Your task to perform on an android device: Go to settings Image 0: 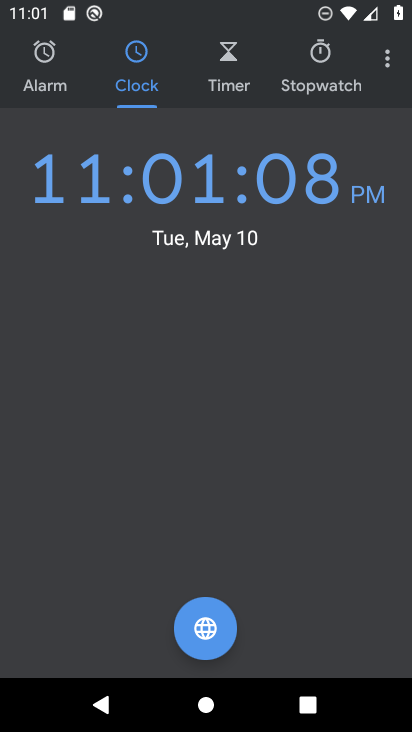
Step 0: press home button
Your task to perform on an android device: Go to settings Image 1: 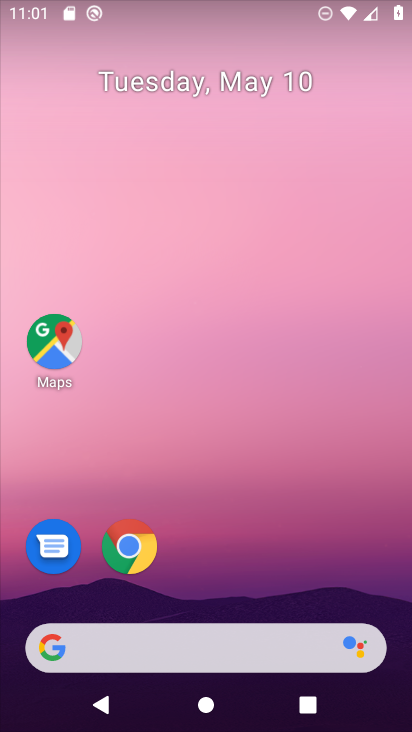
Step 1: drag from (304, 390) to (276, 53)
Your task to perform on an android device: Go to settings Image 2: 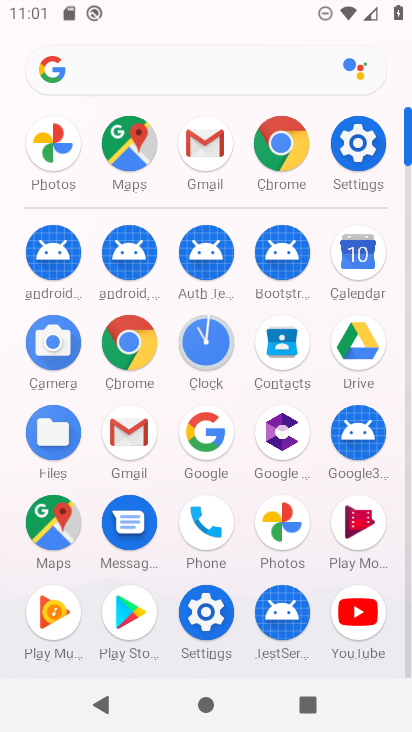
Step 2: click (357, 134)
Your task to perform on an android device: Go to settings Image 3: 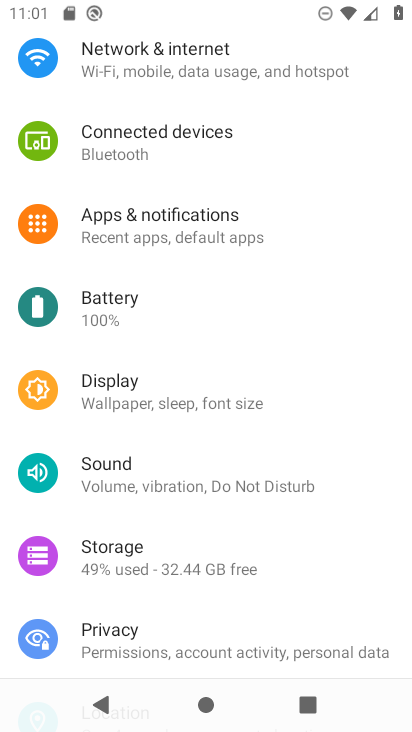
Step 3: task complete